Your task to perform on an android device: change alarm snooze length Image 0: 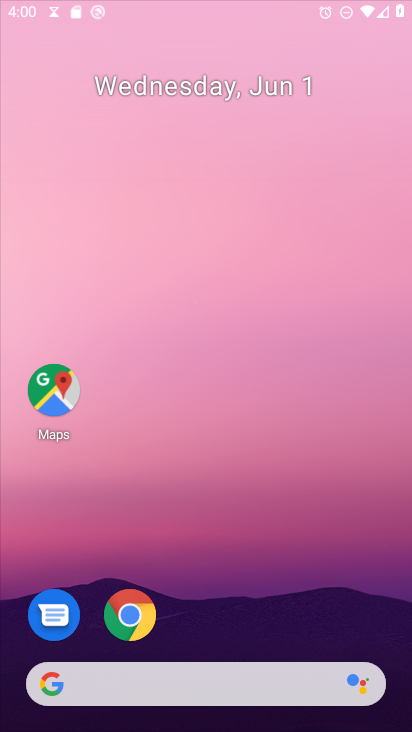
Step 0: press home button
Your task to perform on an android device: change alarm snooze length Image 1: 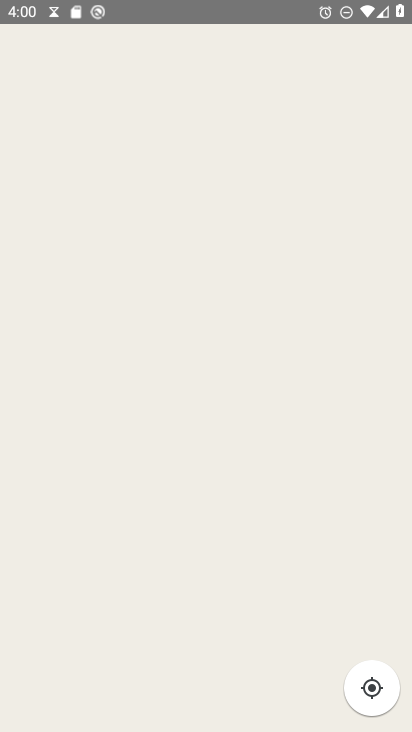
Step 1: drag from (229, 638) to (299, 142)
Your task to perform on an android device: change alarm snooze length Image 2: 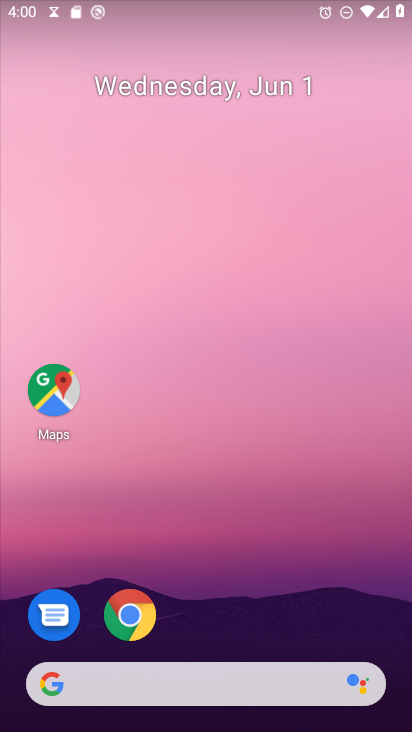
Step 2: drag from (235, 636) to (273, 172)
Your task to perform on an android device: change alarm snooze length Image 3: 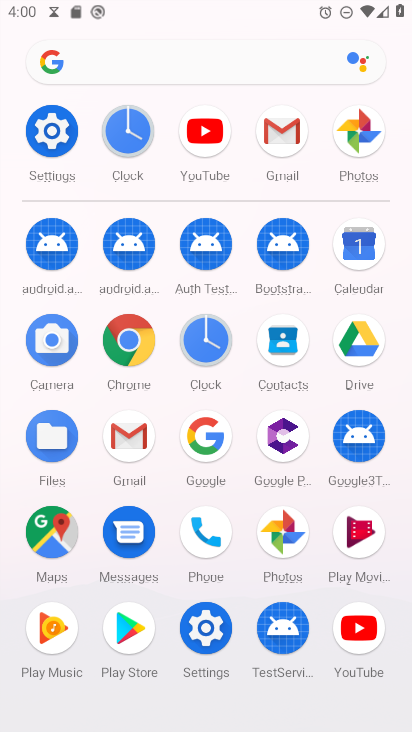
Step 3: click (204, 335)
Your task to perform on an android device: change alarm snooze length Image 4: 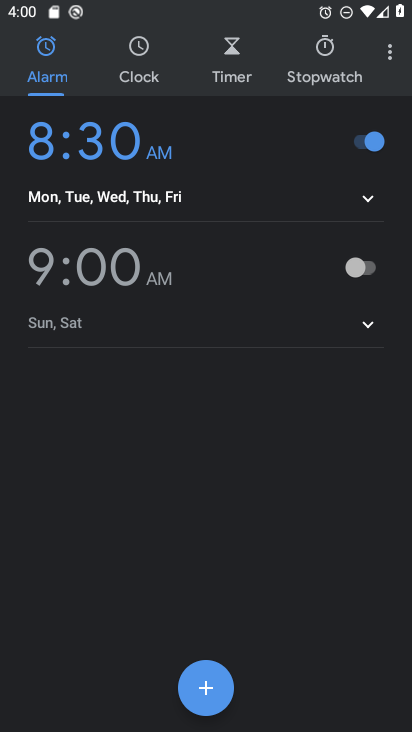
Step 4: click (388, 44)
Your task to perform on an android device: change alarm snooze length Image 5: 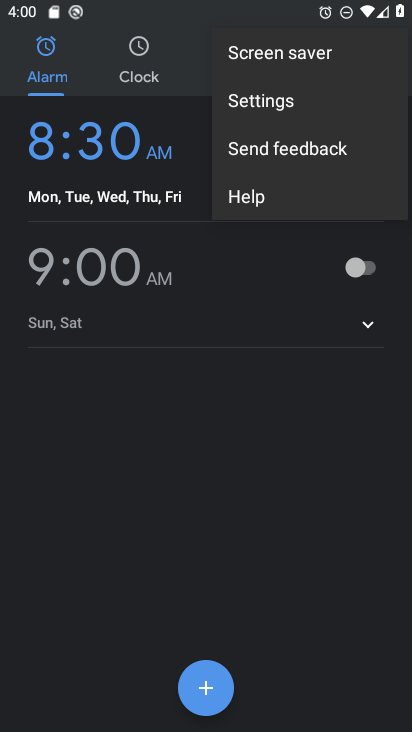
Step 5: click (299, 98)
Your task to perform on an android device: change alarm snooze length Image 6: 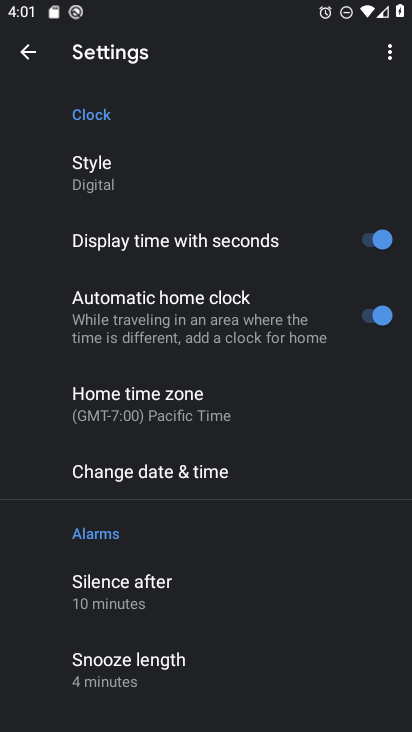
Step 6: click (175, 665)
Your task to perform on an android device: change alarm snooze length Image 7: 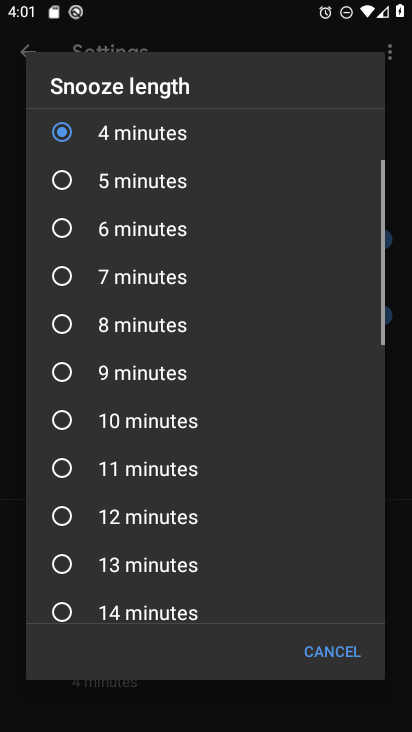
Step 7: drag from (112, 245) to (153, 554)
Your task to perform on an android device: change alarm snooze length Image 8: 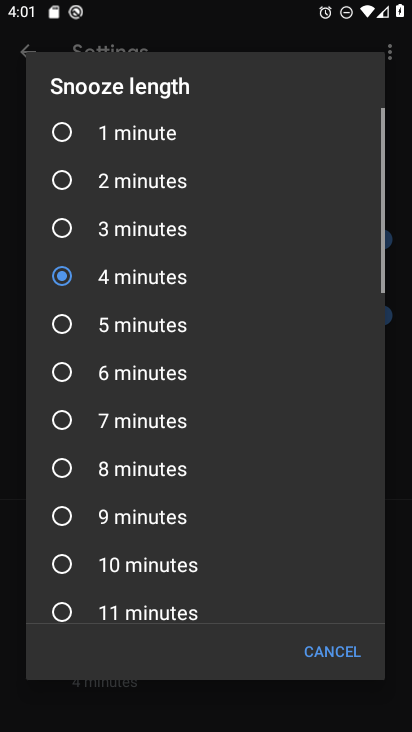
Step 8: click (64, 130)
Your task to perform on an android device: change alarm snooze length Image 9: 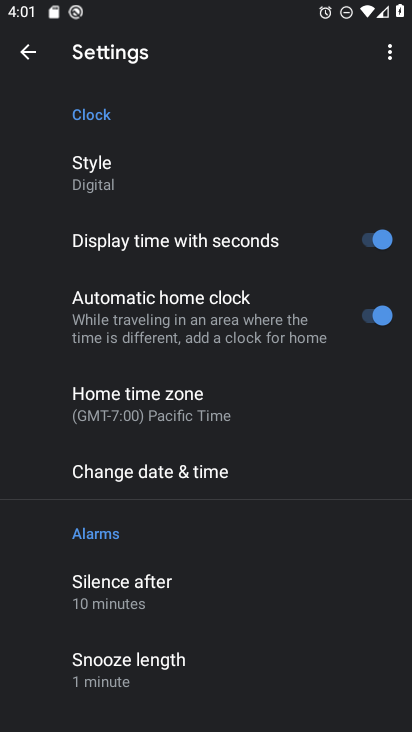
Step 9: task complete